Your task to perform on an android device: Go to calendar. Show me events next week Image 0: 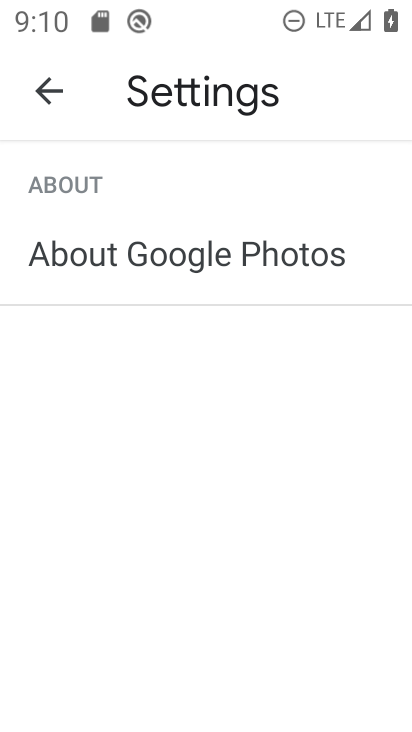
Step 0: press home button
Your task to perform on an android device: Go to calendar. Show me events next week Image 1: 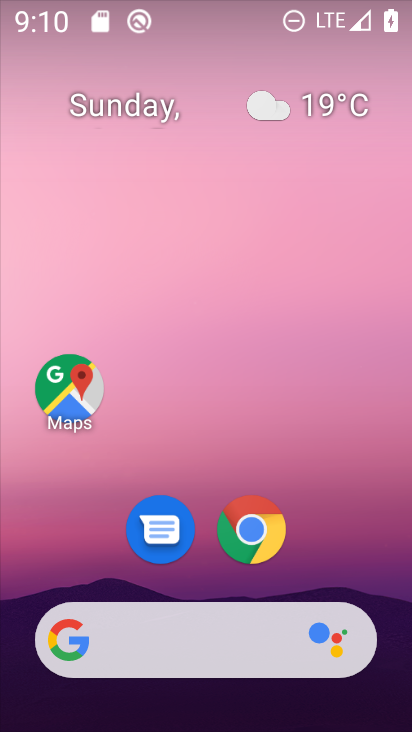
Step 1: drag from (208, 564) to (244, 140)
Your task to perform on an android device: Go to calendar. Show me events next week Image 2: 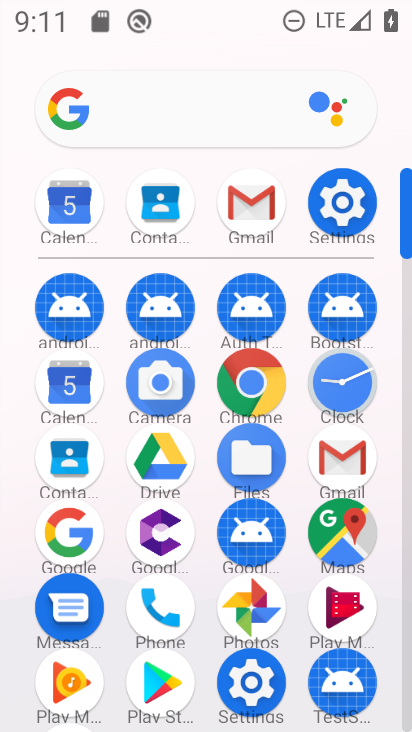
Step 2: click (69, 381)
Your task to perform on an android device: Go to calendar. Show me events next week Image 3: 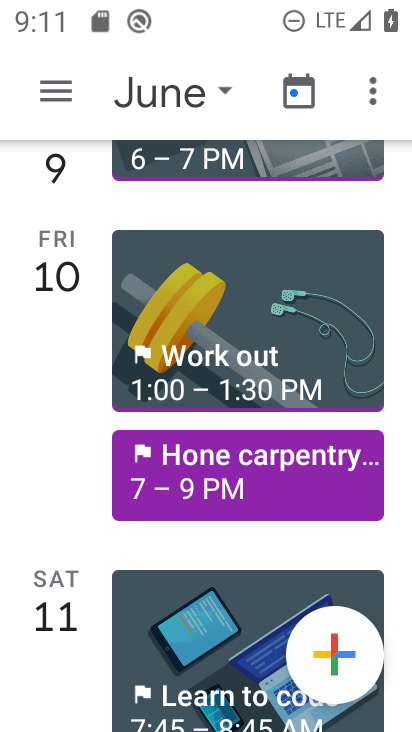
Step 3: click (196, 91)
Your task to perform on an android device: Go to calendar. Show me events next week Image 4: 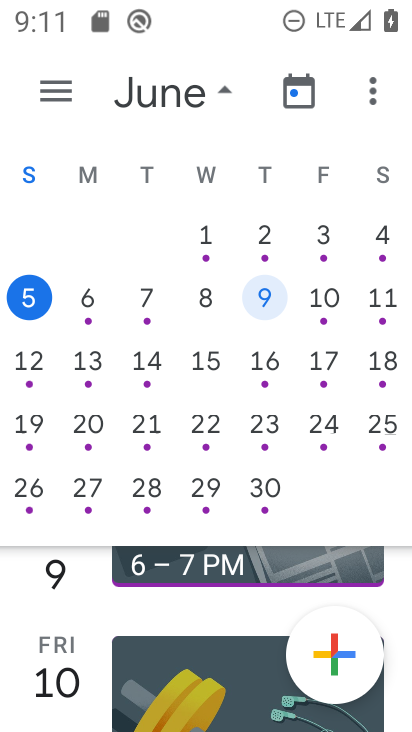
Step 4: click (27, 357)
Your task to perform on an android device: Go to calendar. Show me events next week Image 5: 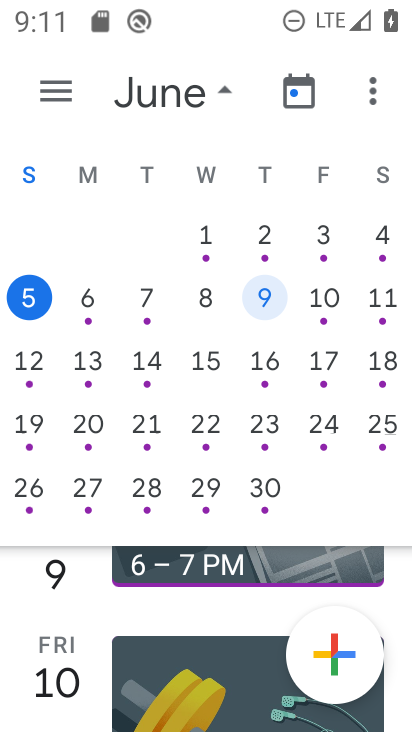
Step 5: click (37, 367)
Your task to perform on an android device: Go to calendar. Show me events next week Image 6: 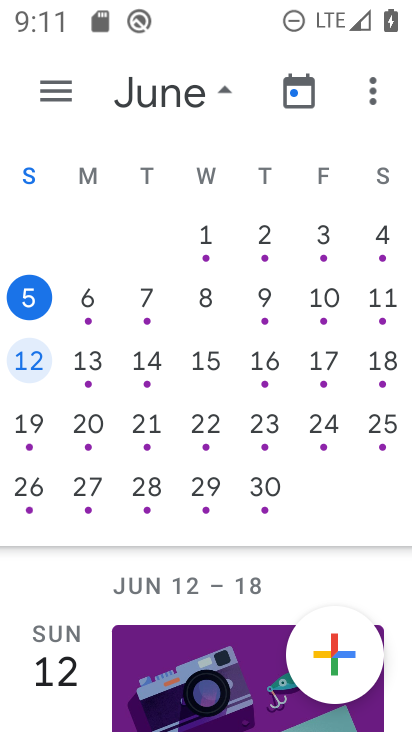
Step 6: click (220, 95)
Your task to perform on an android device: Go to calendar. Show me events next week Image 7: 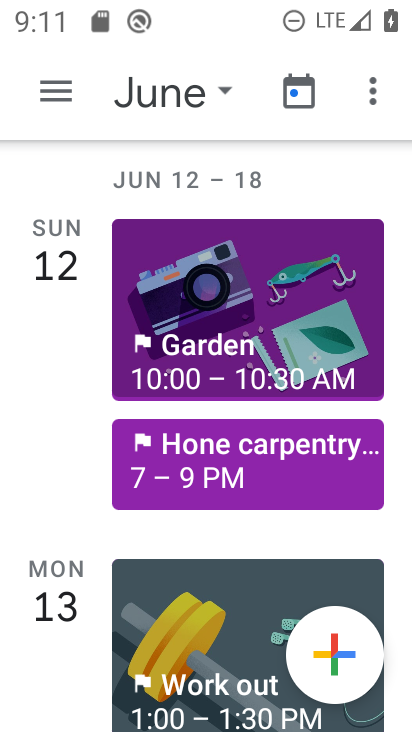
Step 7: task complete